Your task to perform on an android device: turn on wifi Image 0: 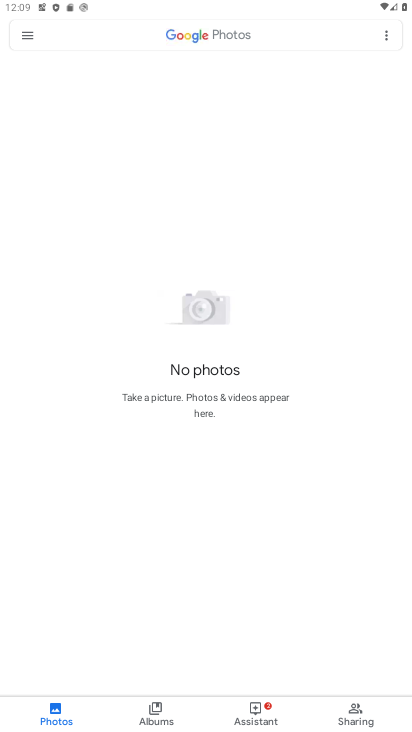
Step 0: drag from (311, 448) to (312, 373)
Your task to perform on an android device: turn on wifi Image 1: 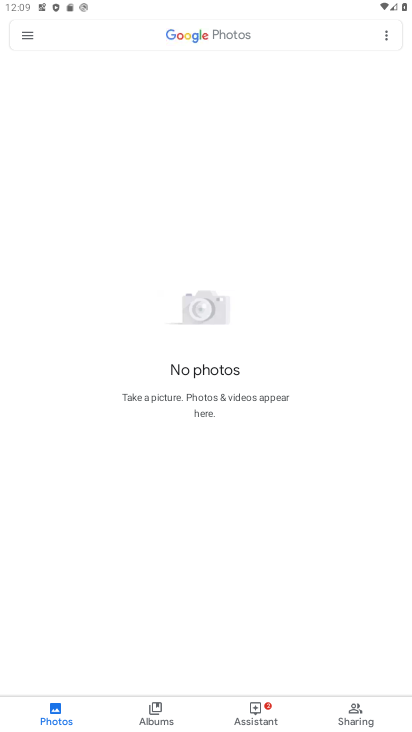
Step 1: press home button
Your task to perform on an android device: turn on wifi Image 2: 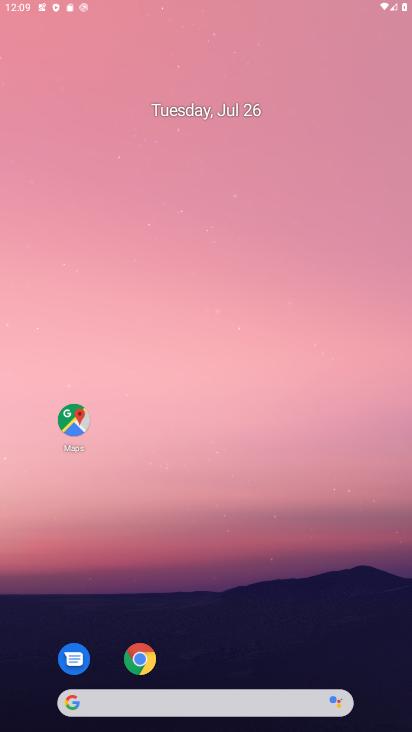
Step 2: drag from (220, 508) to (281, 131)
Your task to perform on an android device: turn on wifi Image 3: 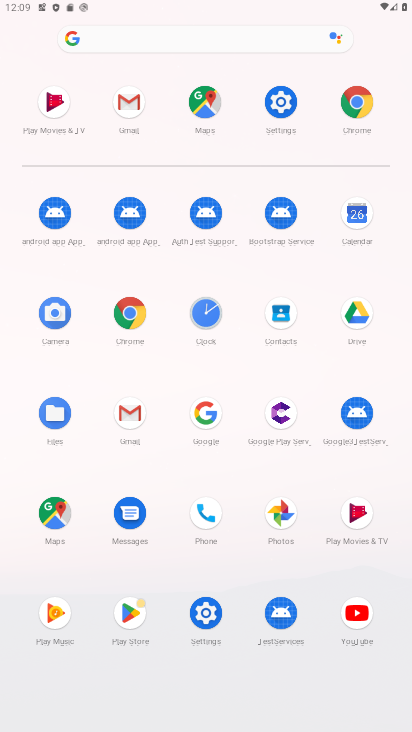
Step 3: click (278, 92)
Your task to perform on an android device: turn on wifi Image 4: 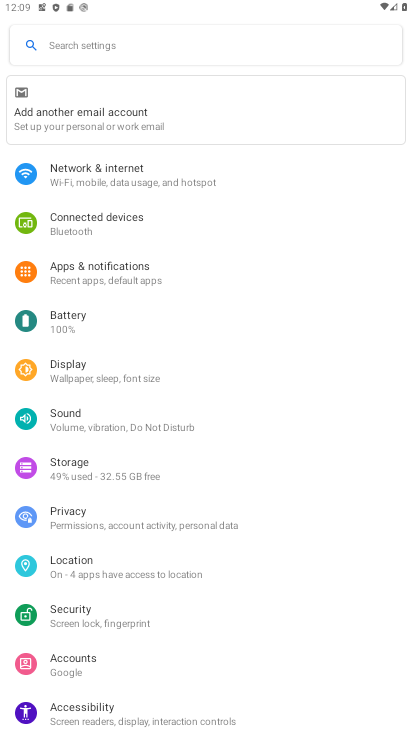
Step 4: click (136, 178)
Your task to perform on an android device: turn on wifi Image 5: 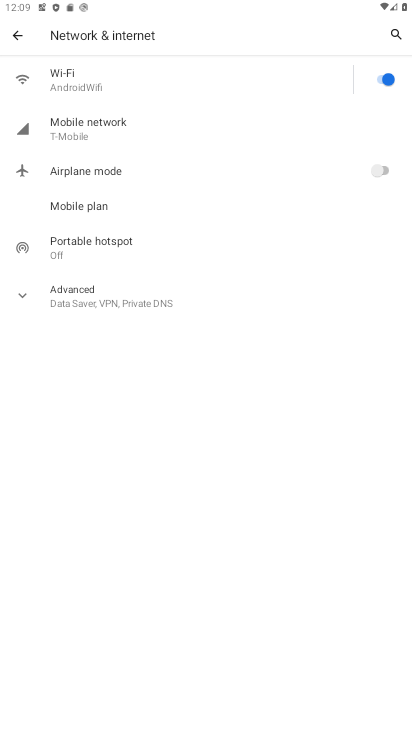
Step 5: click (195, 78)
Your task to perform on an android device: turn on wifi Image 6: 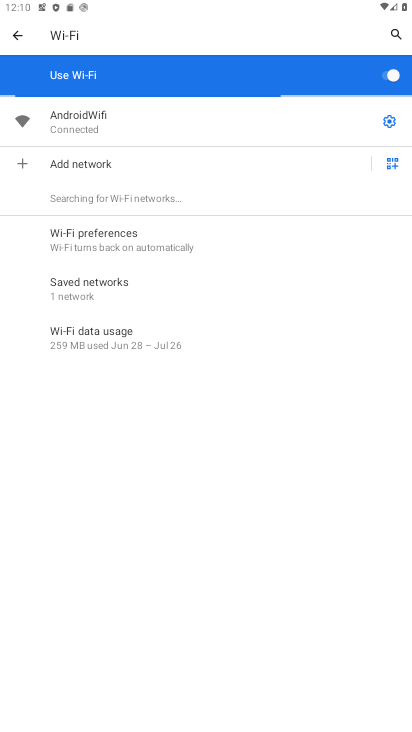
Step 6: task complete